Your task to perform on an android device: toggle notifications settings in the gmail app Image 0: 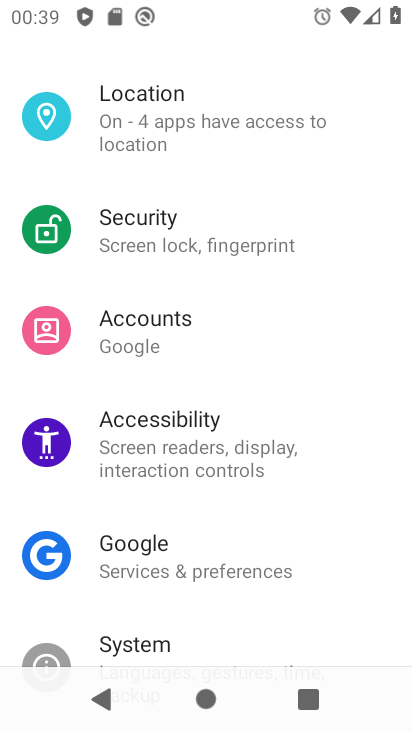
Step 0: press home button
Your task to perform on an android device: toggle notifications settings in the gmail app Image 1: 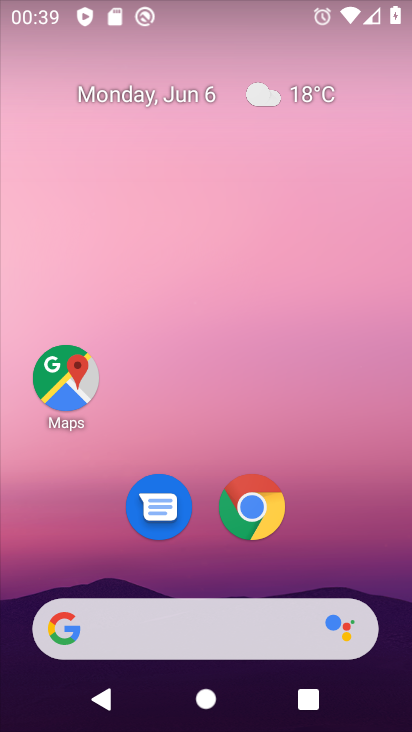
Step 1: drag from (197, 558) to (233, 94)
Your task to perform on an android device: toggle notifications settings in the gmail app Image 2: 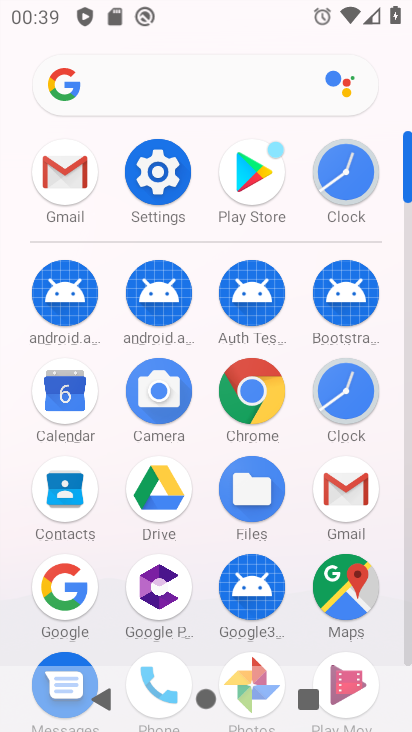
Step 2: click (359, 484)
Your task to perform on an android device: toggle notifications settings in the gmail app Image 3: 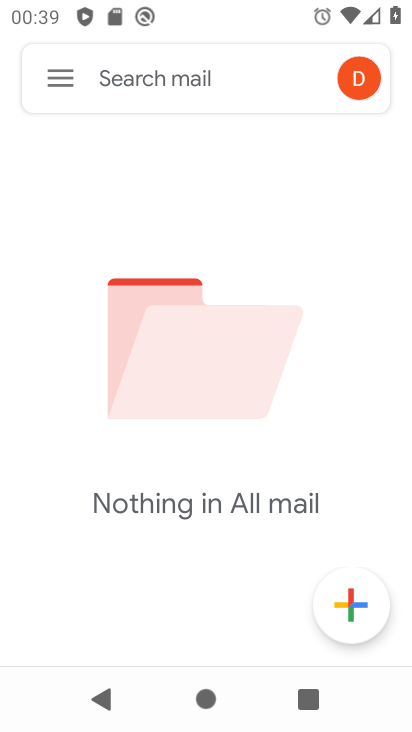
Step 3: click (44, 71)
Your task to perform on an android device: toggle notifications settings in the gmail app Image 4: 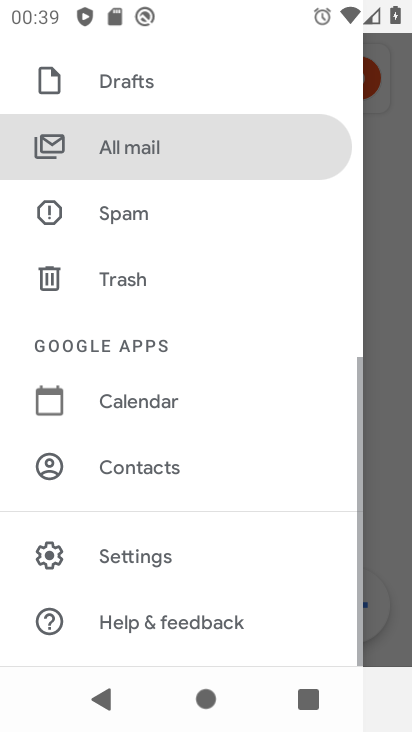
Step 4: click (154, 559)
Your task to perform on an android device: toggle notifications settings in the gmail app Image 5: 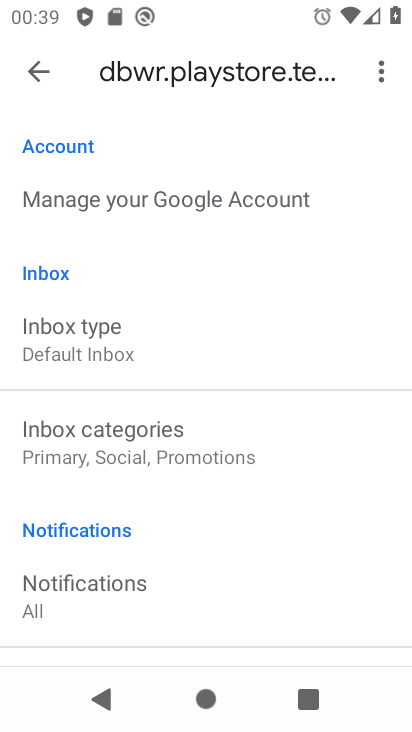
Step 5: click (45, 66)
Your task to perform on an android device: toggle notifications settings in the gmail app Image 6: 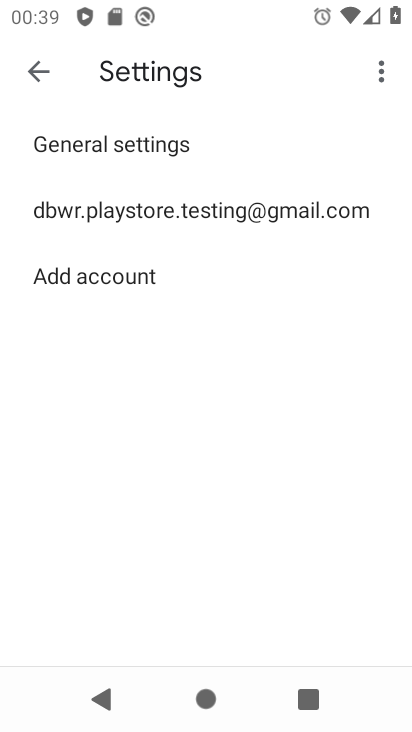
Step 6: click (181, 167)
Your task to perform on an android device: toggle notifications settings in the gmail app Image 7: 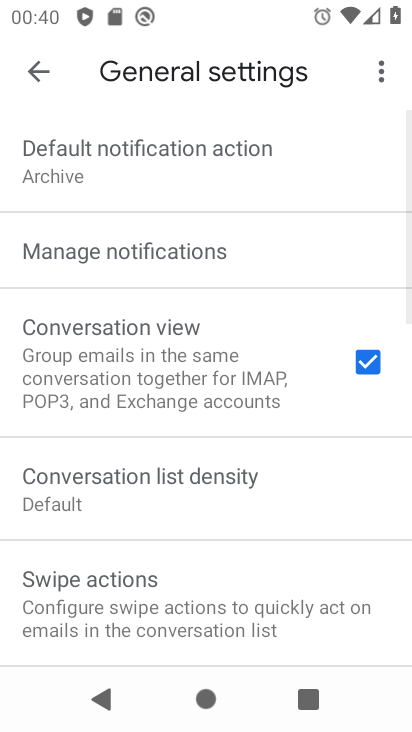
Step 7: click (151, 259)
Your task to perform on an android device: toggle notifications settings in the gmail app Image 8: 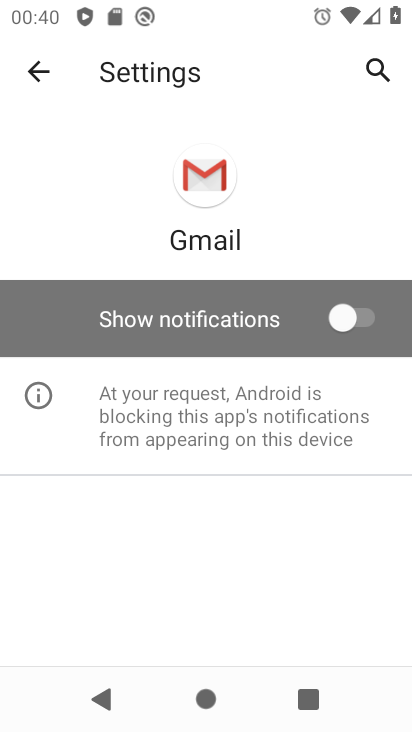
Step 8: click (286, 332)
Your task to perform on an android device: toggle notifications settings in the gmail app Image 9: 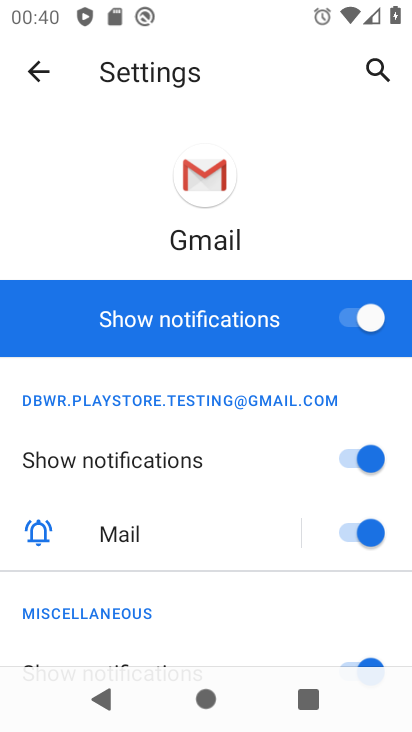
Step 9: task complete